Your task to perform on an android device: turn notification dots on Image 0: 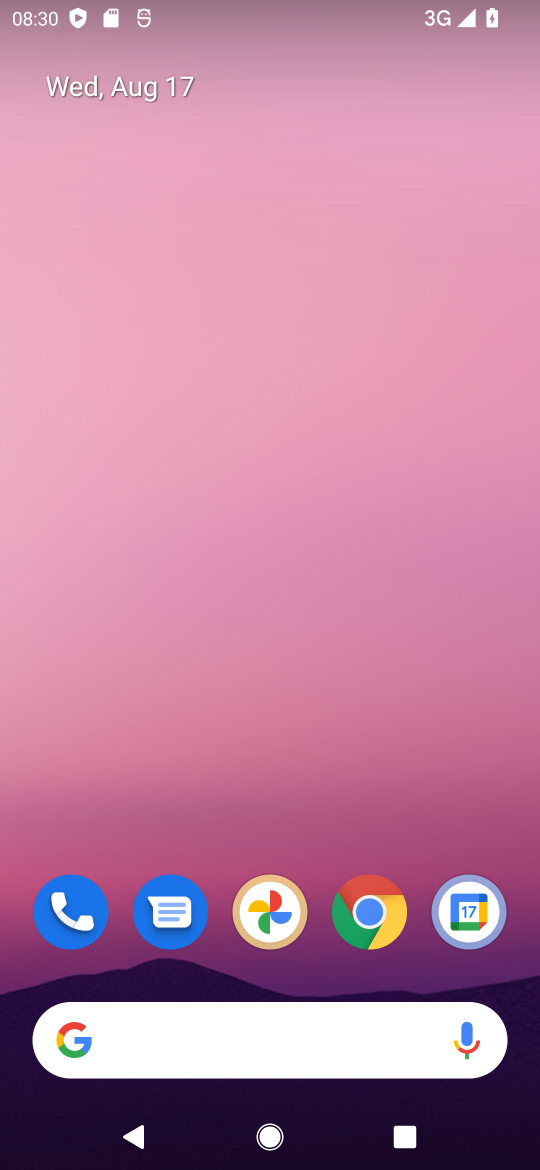
Step 0: drag from (254, 1008) to (254, 290)
Your task to perform on an android device: turn notification dots on Image 1: 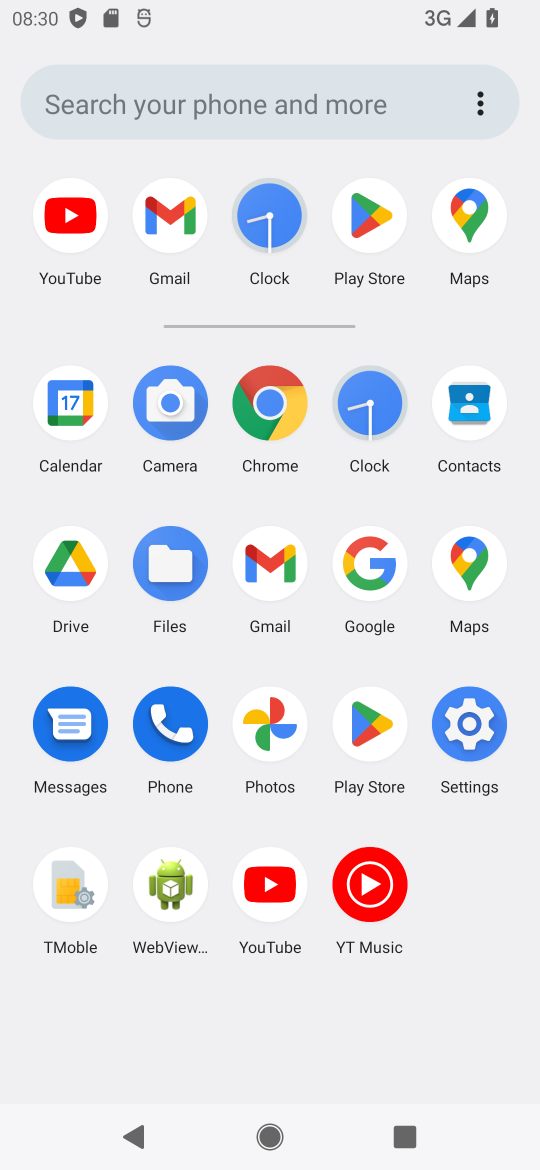
Step 1: click (482, 709)
Your task to perform on an android device: turn notification dots on Image 2: 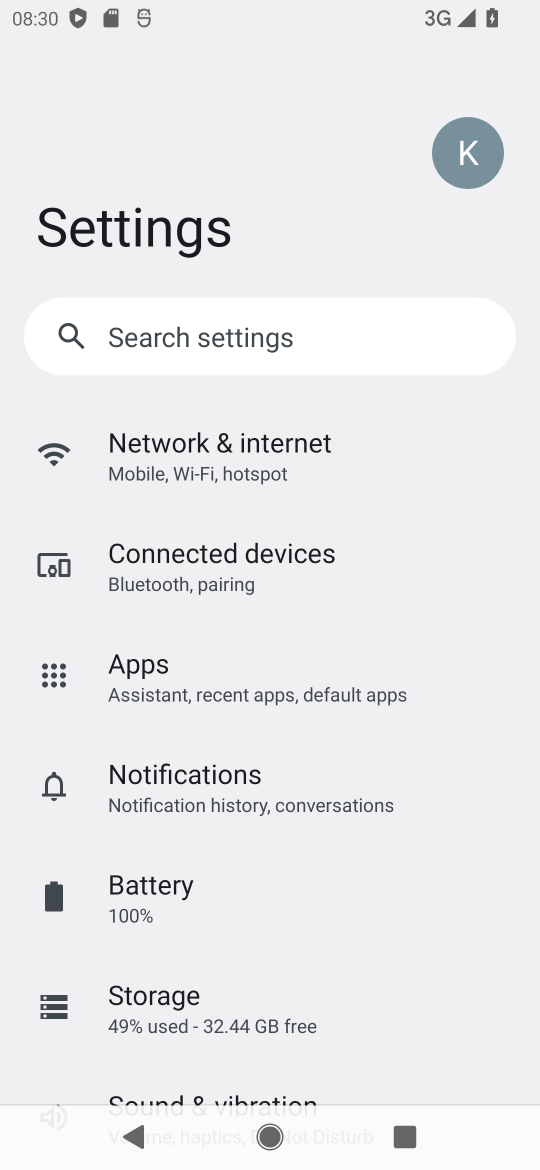
Step 2: click (213, 781)
Your task to perform on an android device: turn notification dots on Image 3: 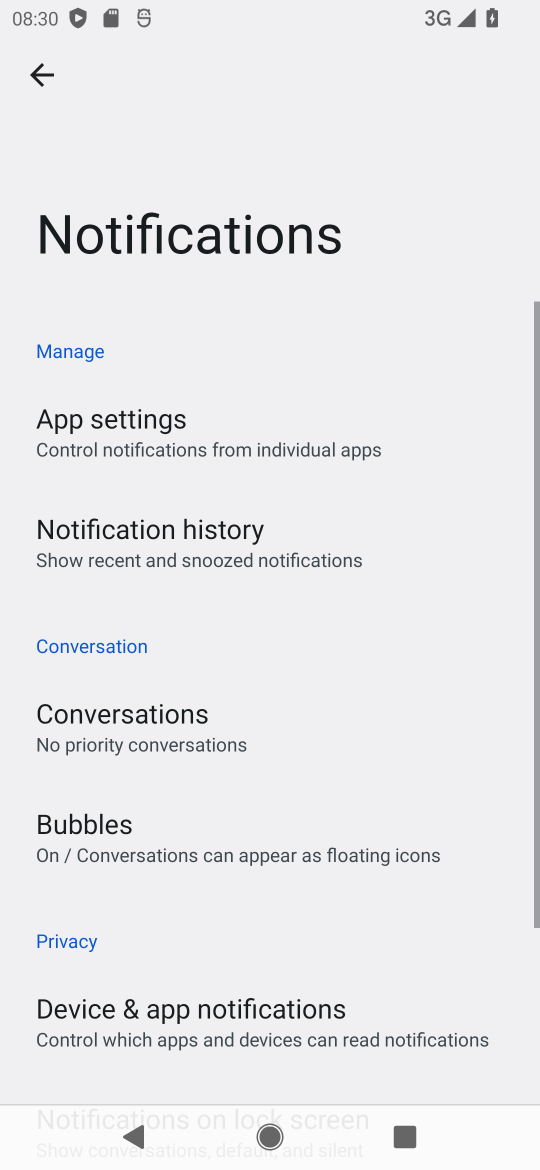
Step 3: drag from (210, 1035) to (242, 239)
Your task to perform on an android device: turn notification dots on Image 4: 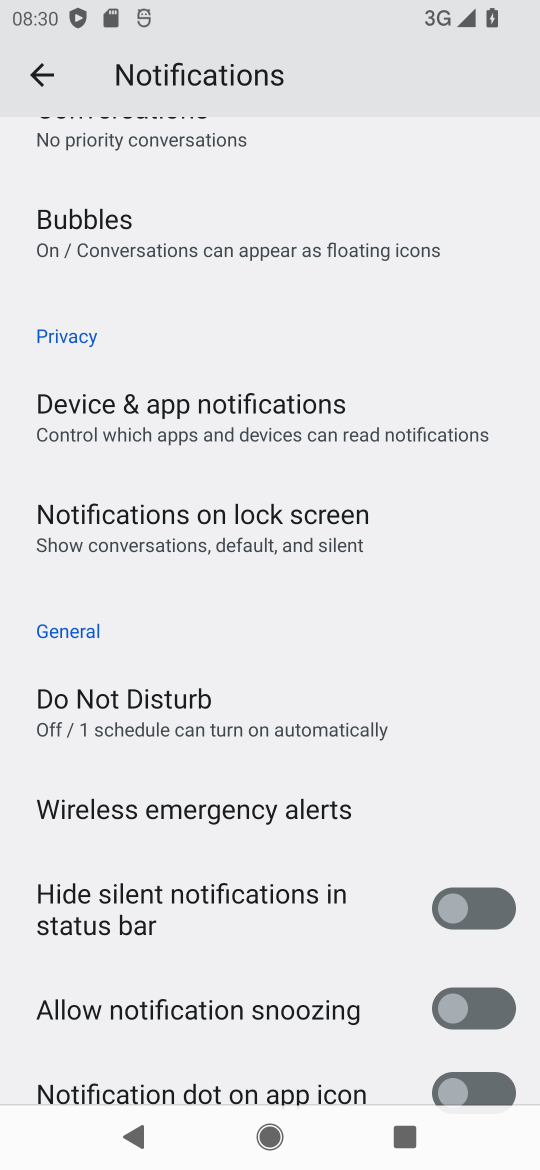
Step 4: drag from (252, 1036) to (244, 414)
Your task to perform on an android device: turn notification dots on Image 5: 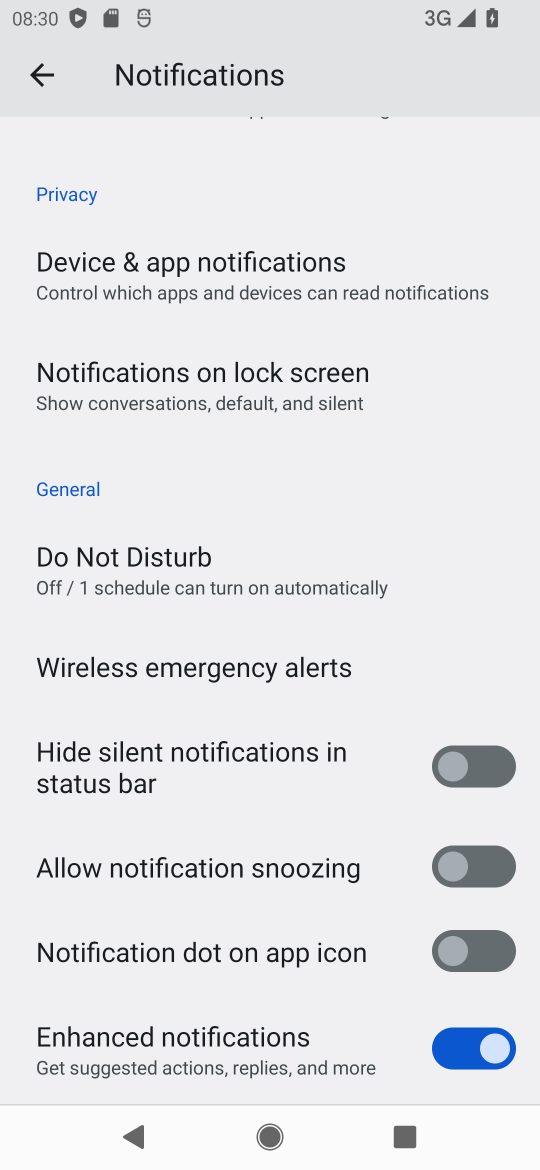
Step 5: click (496, 949)
Your task to perform on an android device: turn notification dots on Image 6: 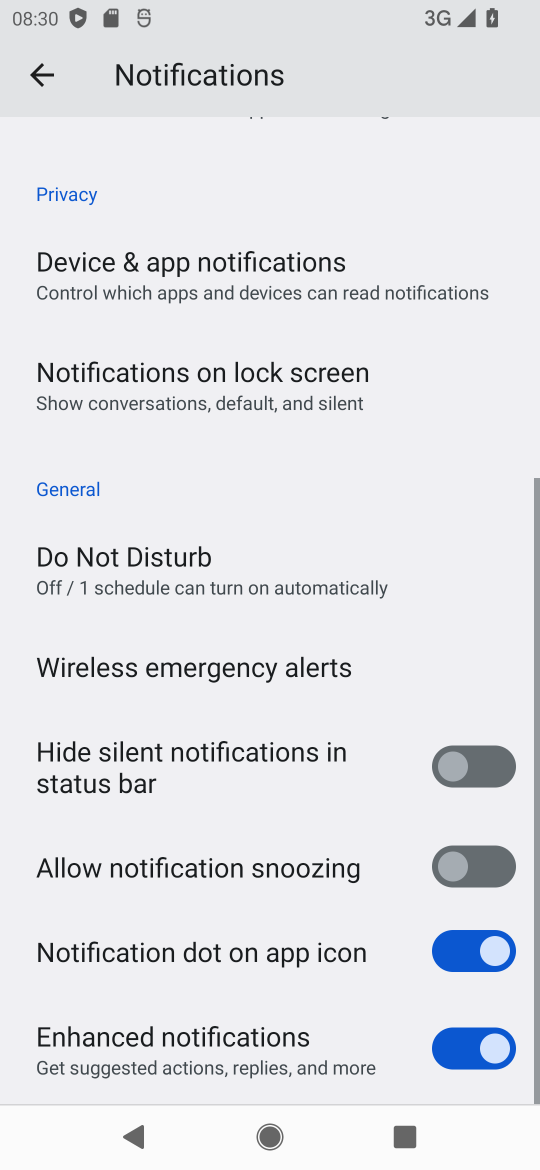
Step 6: task complete